Your task to perform on an android device: change the clock display to digital Image 0: 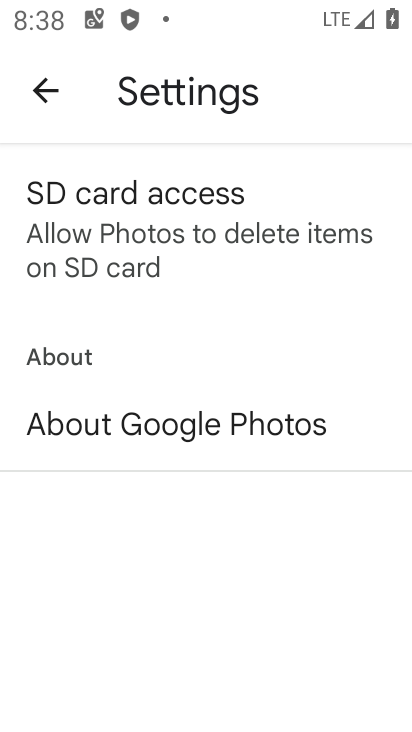
Step 0: press home button
Your task to perform on an android device: change the clock display to digital Image 1: 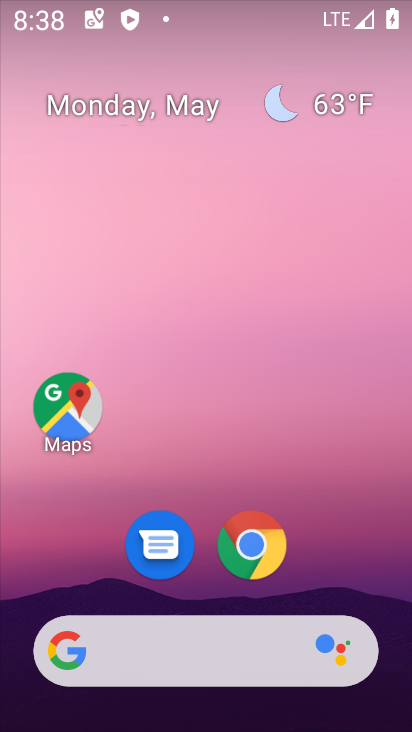
Step 1: drag from (154, 617) to (155, 166)
Your task to perform on an android device: change the clock display to digital Image 2: 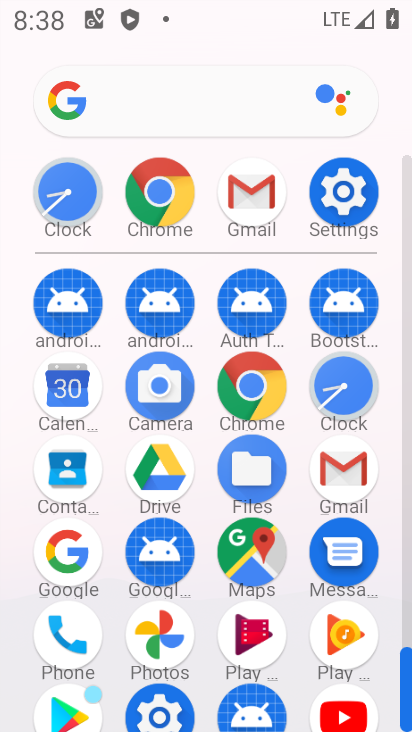
Step 2: click (336, 405)
Your task to perform on an android device: change the clock display to digital Image 3: 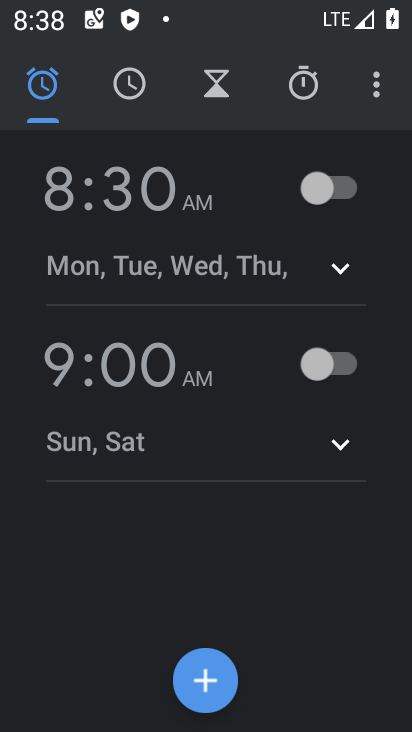
Step 3: click (364, 86)
Your task to perform on an android device: change the clock display to digital Image 4: 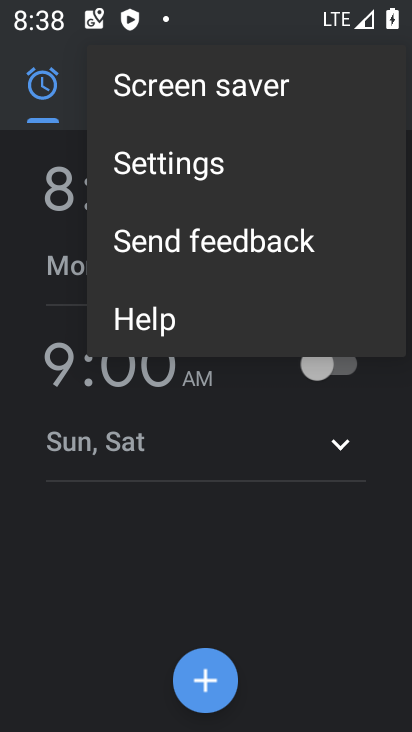
Step 4: click (233, 168)
Your task to perform on an android device: change the clock display to digital Image 5: 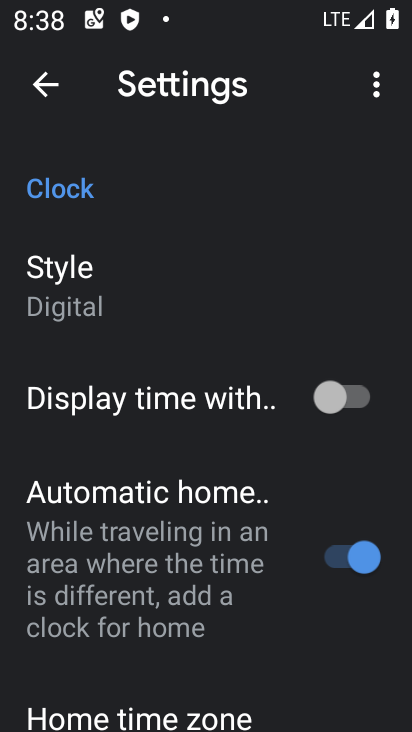
Step 5: click (145, 281)
Your task to perform on an android device: change the clock display to digital Image 6: 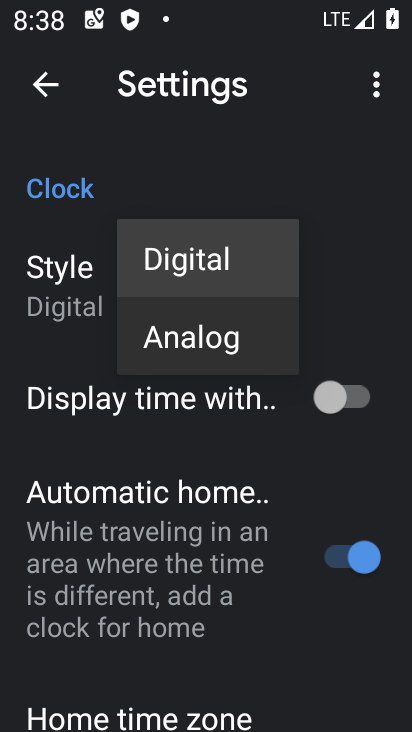
Step 6: click (206, 279)
Your task to perform on an android device: change the clock display to digital Image 7: 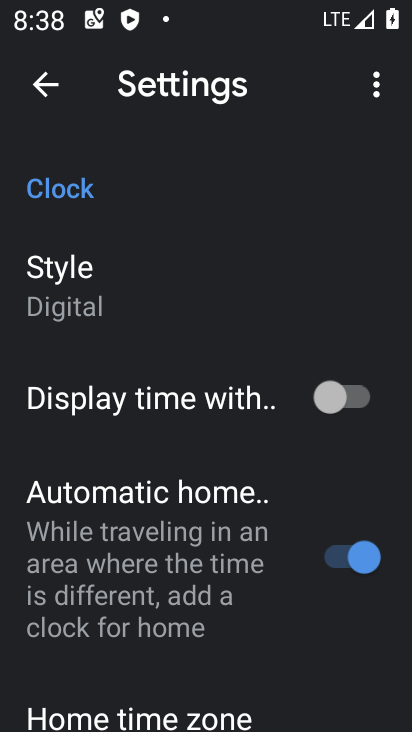
Step 7: task complete